Your task to perform on an android device: Go to calendar. Show me events next week Image 0: 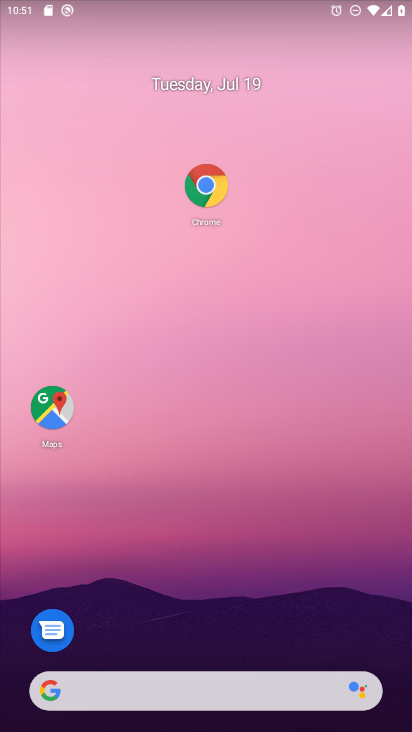
Step 0: drag from (156, 638) to (207, 139)
Your task to perform on an android device: Go to calendar. Show me events next week Image 1: 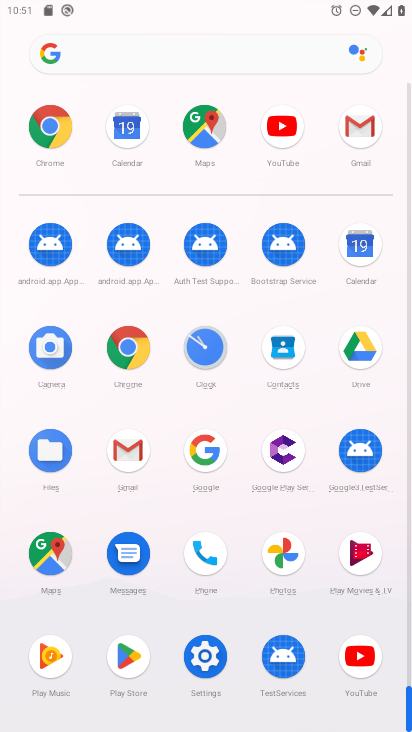
Step 1: click (349, 266)
Your task to perform on an android device: Go to calendar. Show me events next week Image 2: 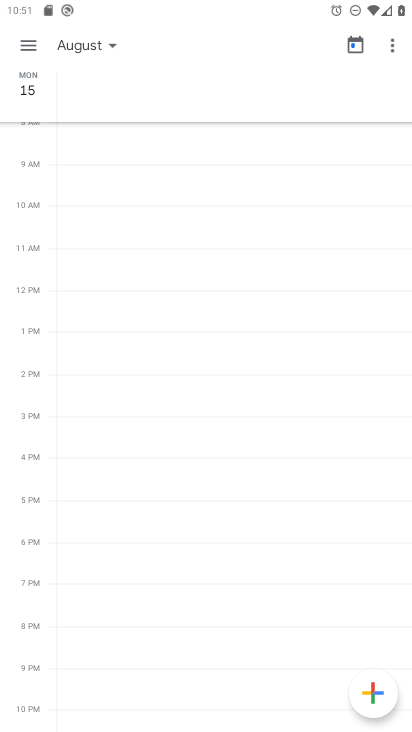
Step 2: click (77, 48)
Your task to perform on an android device: Go to calendar. Show me events next week Image 3: 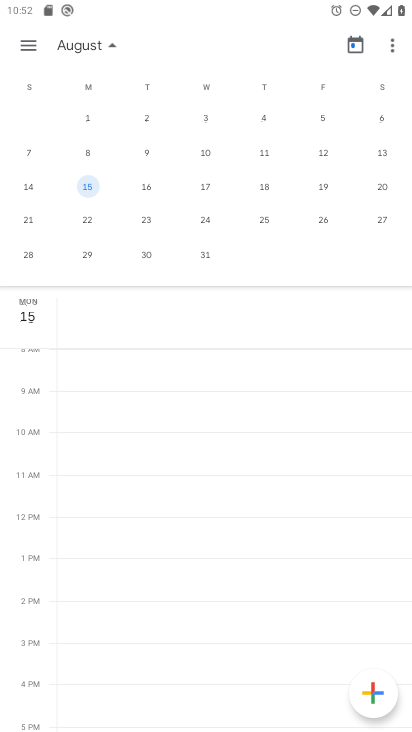
Step 3: click (91, 122)
Your task to perform on an android device: Go to calendar. Show me events next week Image 4: 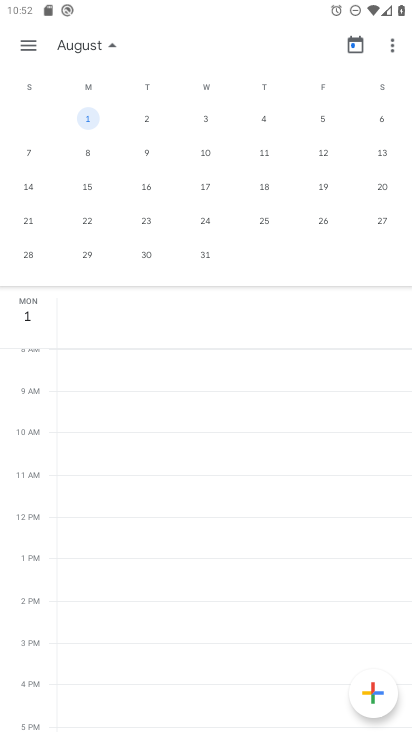
Step 4: task complete